Your task to perform on an android device: Show me productivity apps on the Play Store Image 0: 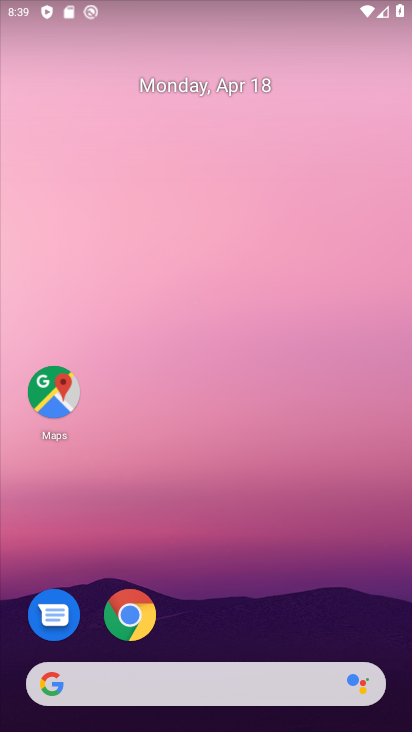
Step 0: drag from (362, 585) to (382, 102)
Your task to perform on an android device: Show me productivity apps on the Play Store Image 1: 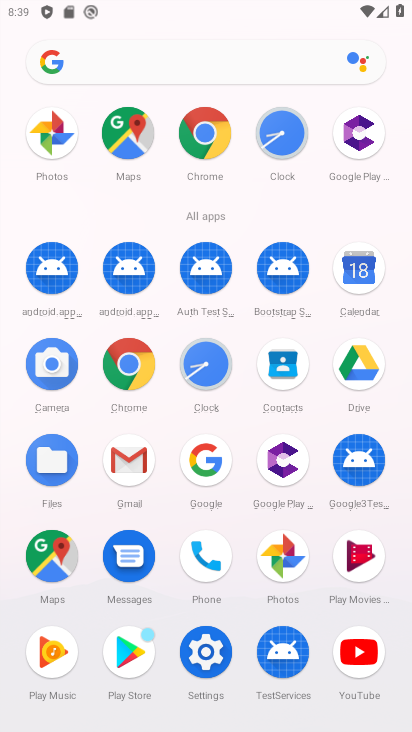
Step 1: click (128, 655)
Your task to perform on an android device: Show me productivity apps on the Play Store Image 2: 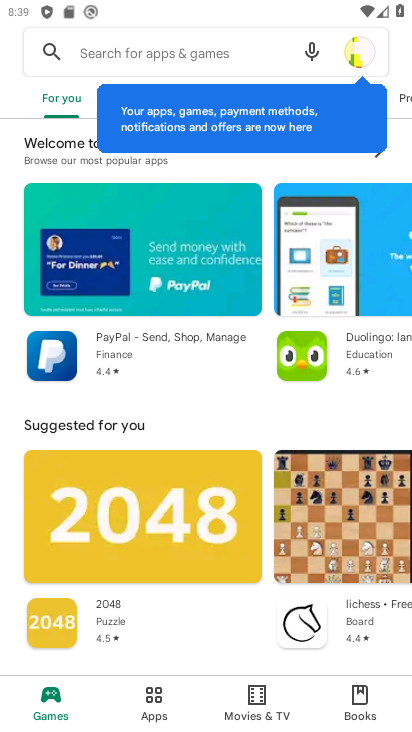
Step 2: click (163, 700)
Your task to perform on an android device: Show me productivity apps on the Play Store Image 3: 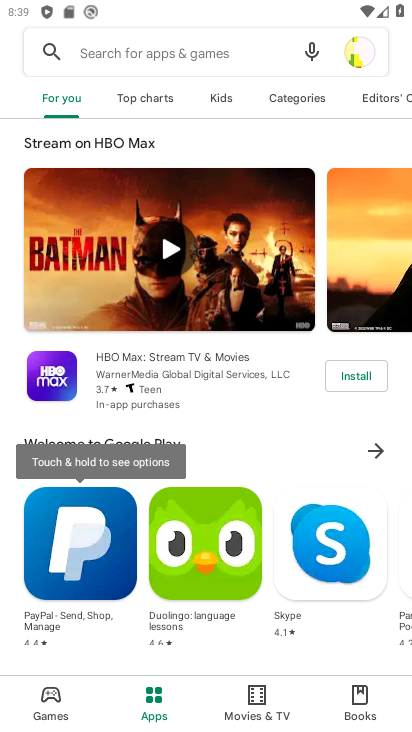
Step 3: click (306, 100)
Your task to perform on an android device: Show me productivity apps on the Play Store Image 4: 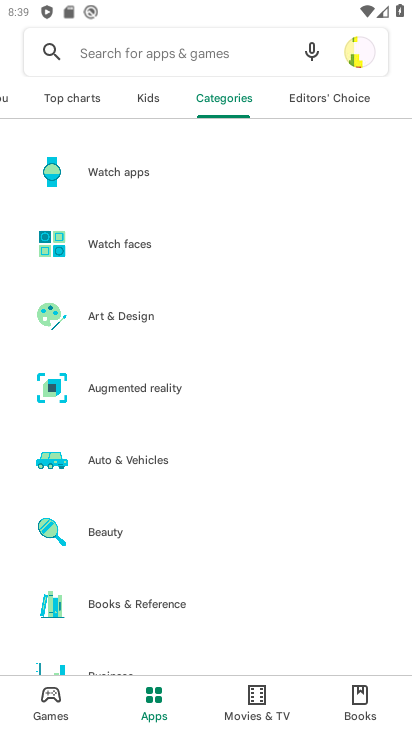
Step 4: drag from (239, 564) to (285, 206)
Your task to perform on an android device: Show me productivity apps on the Play Store Image 5: 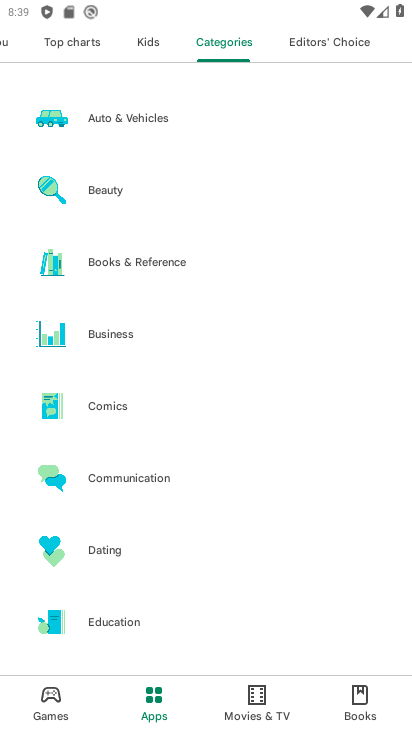
Step 5: drag from (246, 542) to (274, 262)
Your task to perform on an android device: Show me productivity apps on the Play Store Image 6: 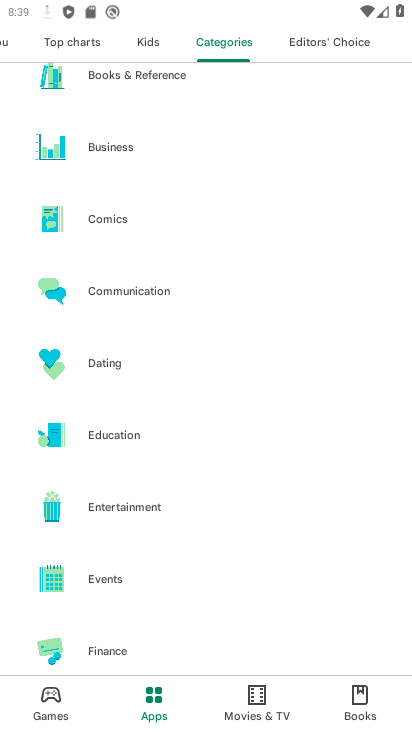
Step 6: drag from (264, 612) to (293, 121)
Your task to perform on an android device: Show me productivity apps on the Play Store Image 7: 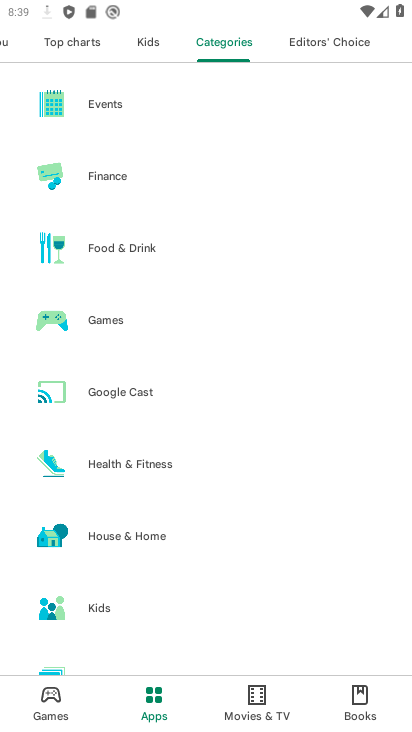
Step 7: drag from (252, 571) to (311, 141)
Your task to perform on an android device: Show me productivity apps on the Play Store Image 8: 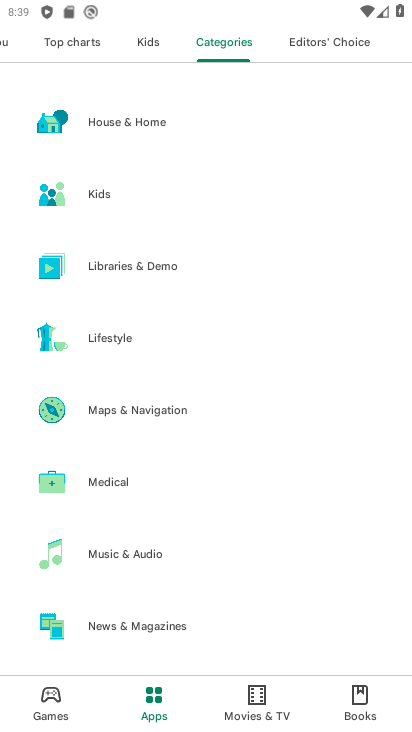
Step 8: drag from (263, 574) to (296, 229)
Your task to perform on an android device: Show me productivity apps on the Play Store Image 9: 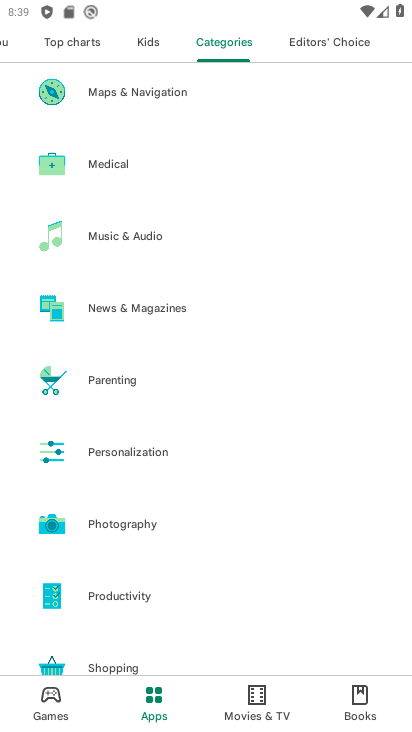
Step 9: click (146, 590)
Your task to perform on an android device: Show me productivity apps on the Play Store Image 10: 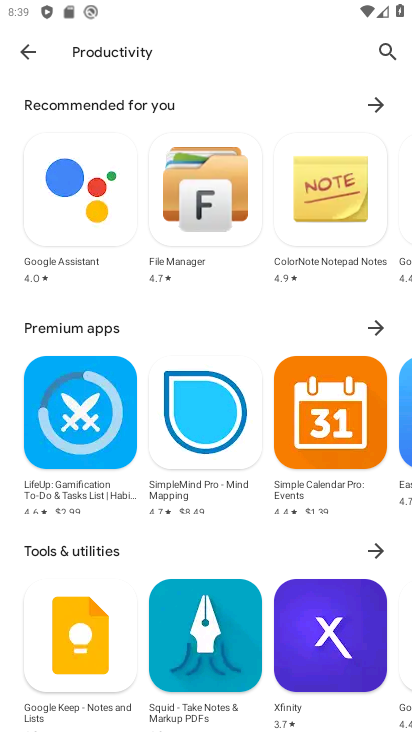
Step 10: task complete